Your task to perform on an android device: Check the weather Image 0: 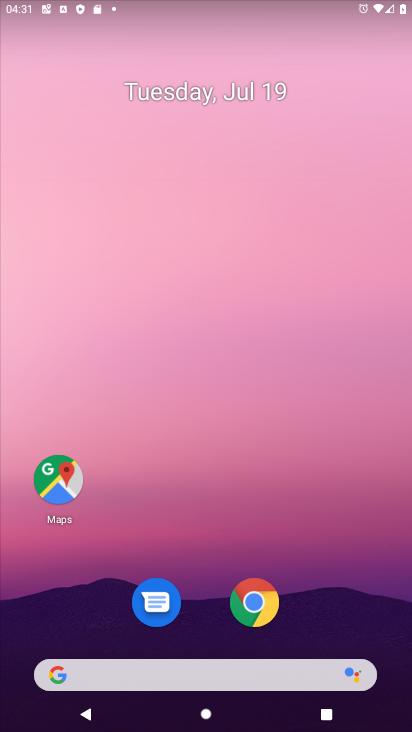
Step 0: click (99, 676)
Your task to perform on an android device: Check the weather Image 1: 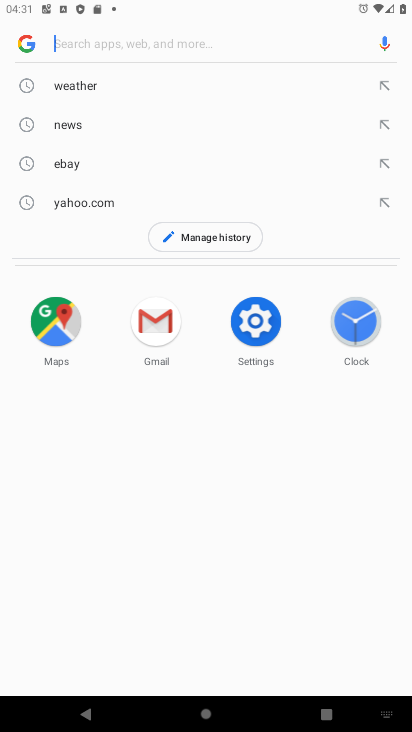
Step 1: click (122, 94)
Your task to perform on an android device: Check the weather Image 2: 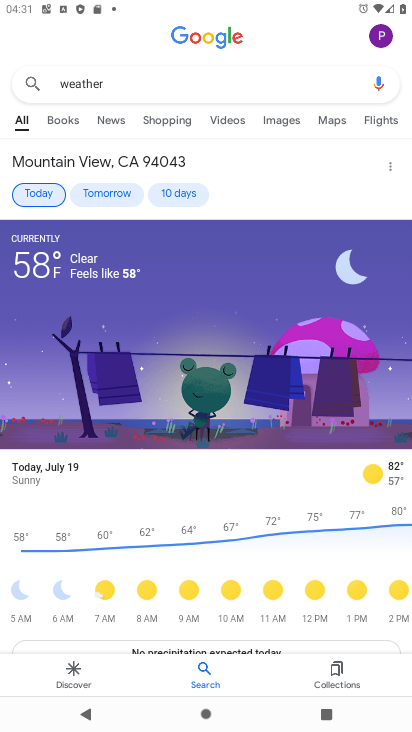
Step 2: task complete